Your task to perform on an android device: Open the stopwatch Image 0: 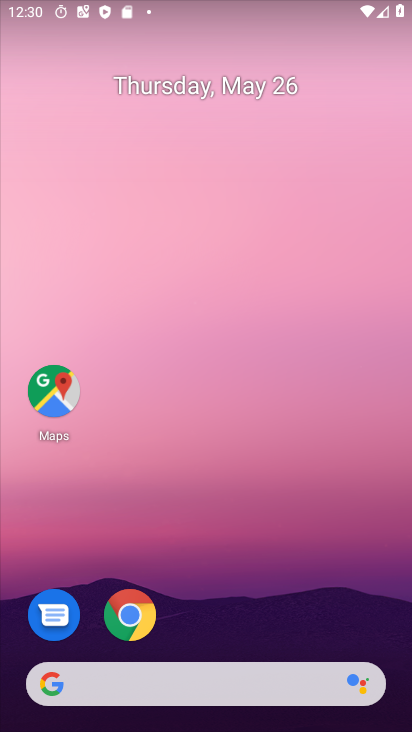
Step 0: drag from (250, 623) to (225, 147)
Your task to perform on an android device: Open the stopwatch Image 1: 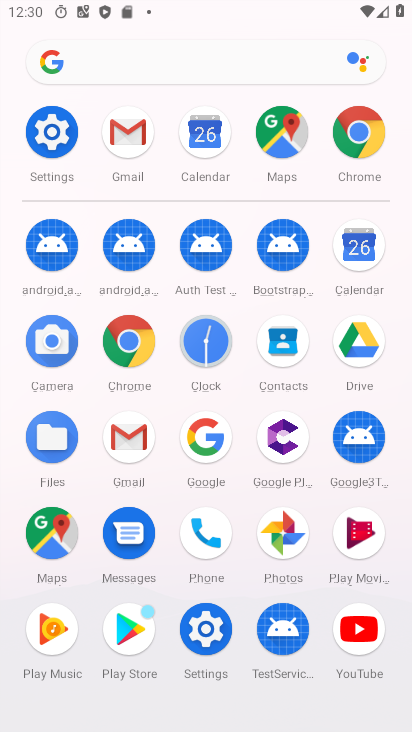
Step 1: click (210, 330)
Your task to perform on an android device: Open the stopwatch Image 2: 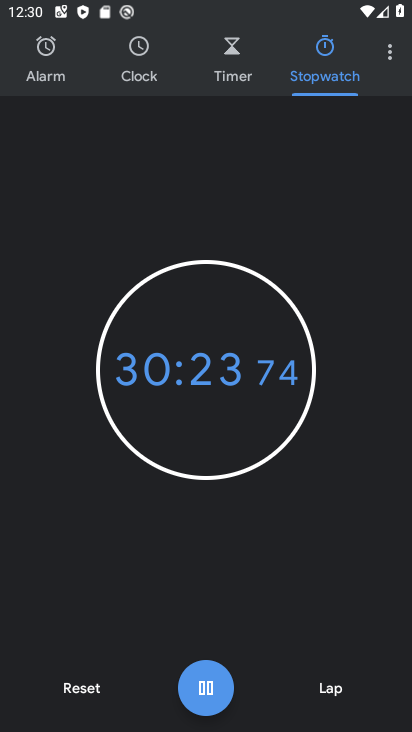
Step 2: task complete